Your task to perform on an android device: What's on my calendar today? Image 0: 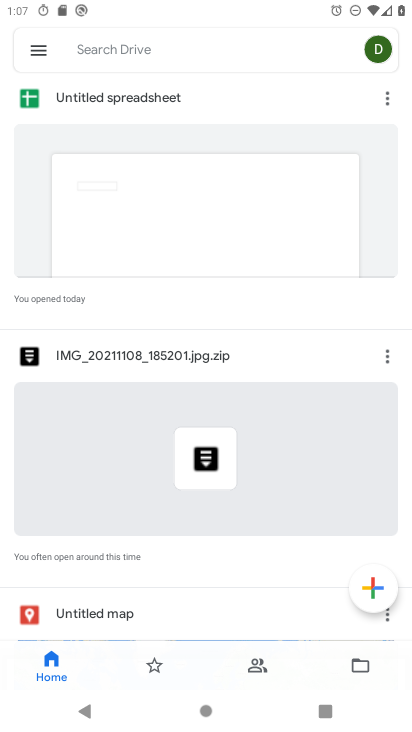
Step 0: press home button
Your task to perform on an android device: What's on my calendar today? Image 1: 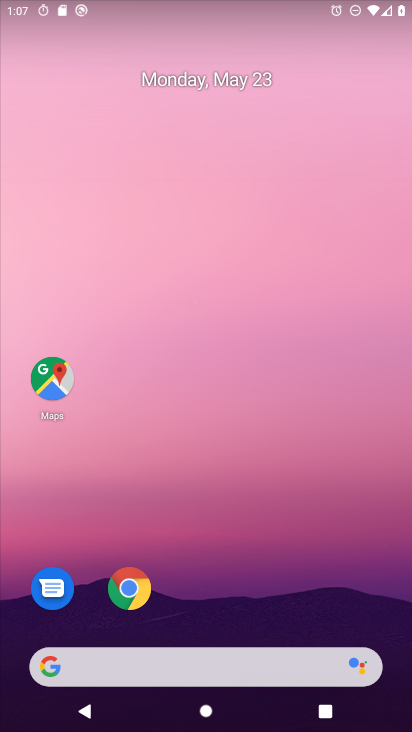
Step 1: drag from (250, 697) to (101, 158)
Your task to perform on an android device: What's on my calendar today? Image 2: 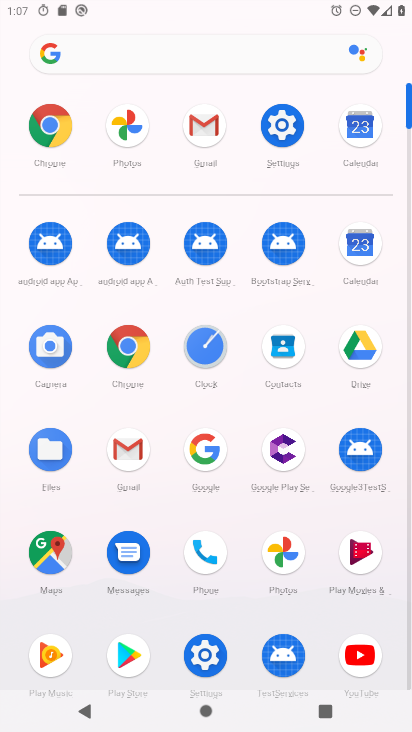
Step 2: click (357, 255)
Your task to perform on an android device: What's on my calendar today? Image 3: 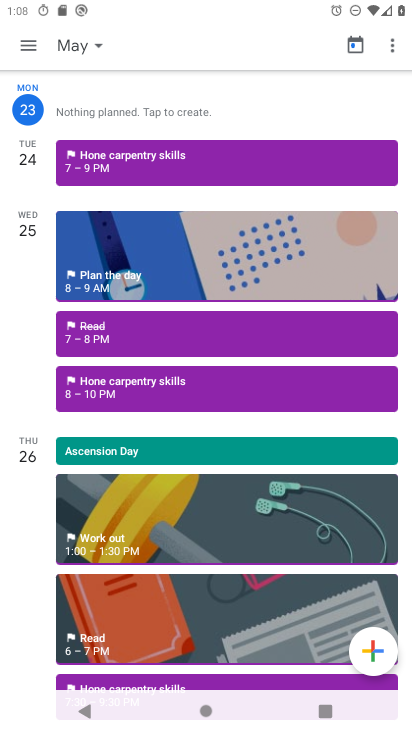
Step 3: task complete